Your task to perform on an android device: open sync settings in chrome Image 0: 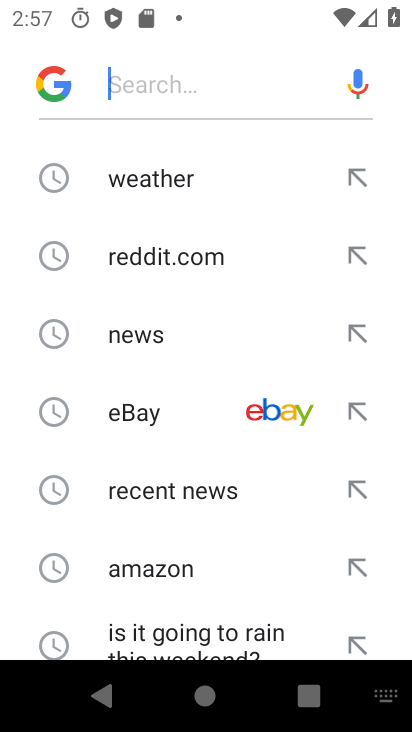
Step 0: press home button
Your task to perform on an android device: open sync settings in chrome Image 1: 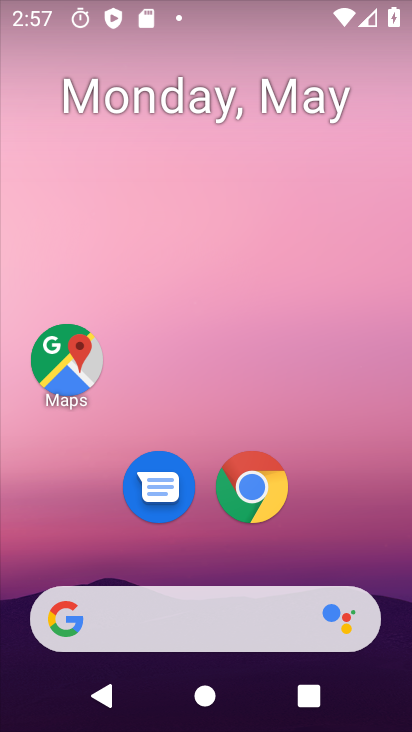
Step 1: drag from (209, 562) to (255, 5)
Your task to perform on an android device: open sync settings in chrome Image 2: 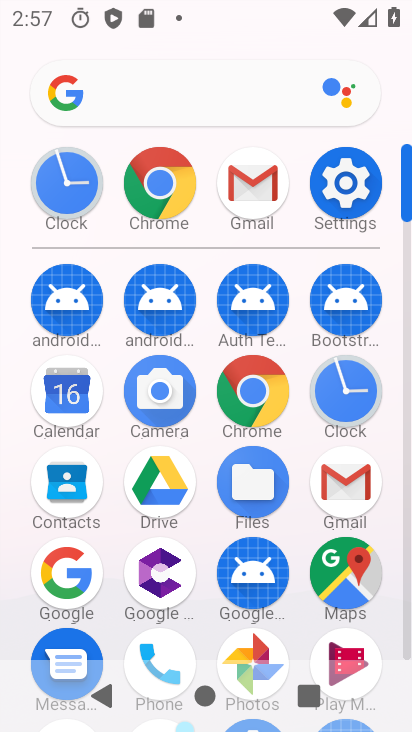
Step 2: click (253, 408)
Your task to perform on an android device: open sync settings in chrome Image 3: 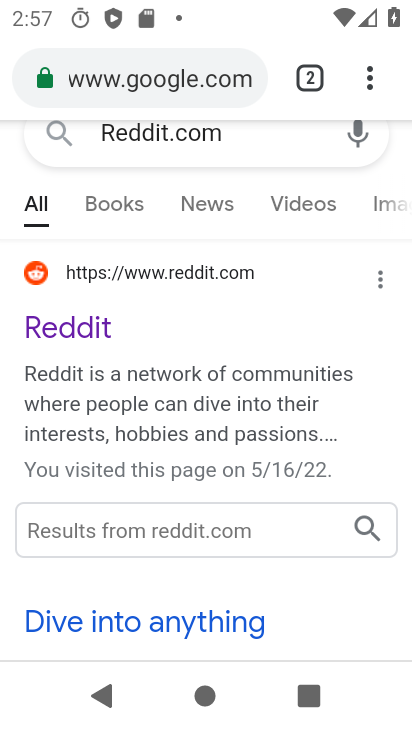
Step 3: click (378, 84)
Your task to perform on an android device: open sync settings in chrome Image 4: 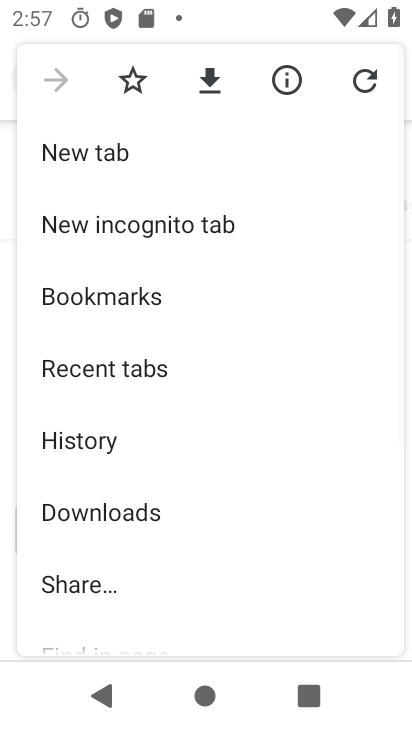
Step 4: drag from (129, 527) to (190, 264)
Your task to perform on an android device: open sync settings in chrome Image 5: 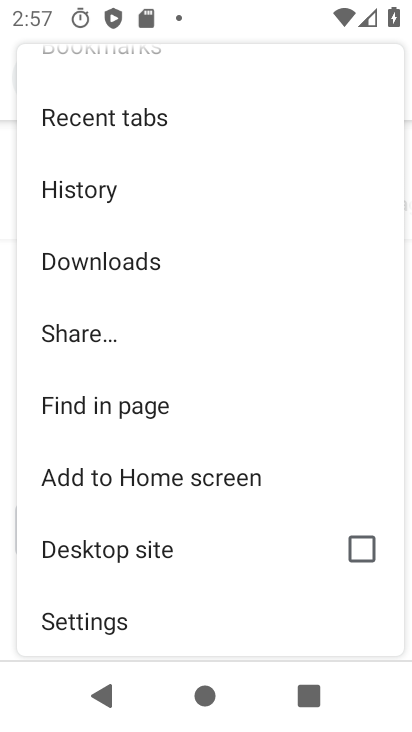
Step 5: drag from (158, 504) to (162, 279)
Your task to perform on an android device: open sync settings in chrome Image 6: 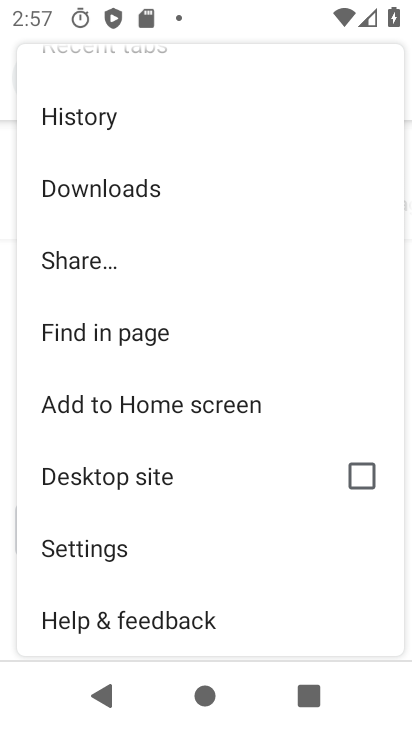
Step 6: click (80, 545)
Your task to perform on an android device: open sync settings in chrome Image 7: 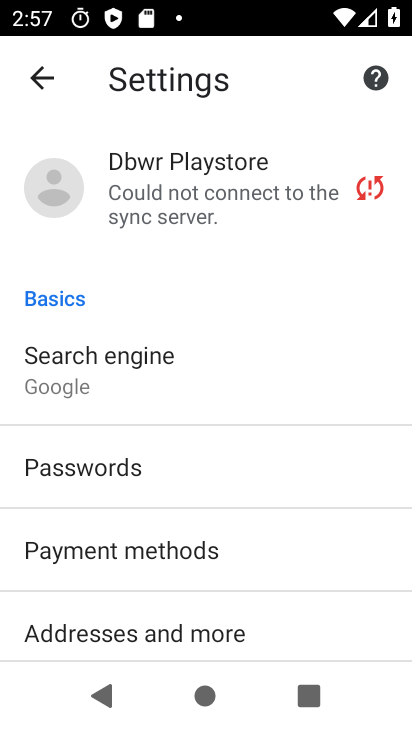
Step 7: click (202, 195)
Your task to perform on an android device: open sync settings in chrome Image 8: 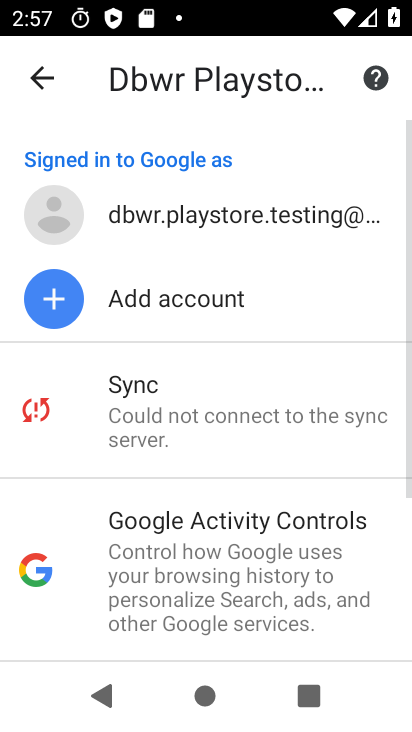
Step 8: click (196, 409)
Your task to perform on an android device: open sync settings in chrome Image 9: 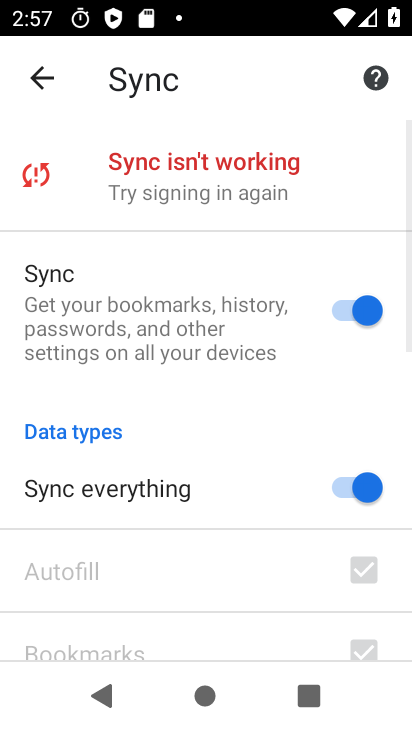
Step 9: task complete